Your task to perform on an android device: turn pop-ups on in chrome Image 0: 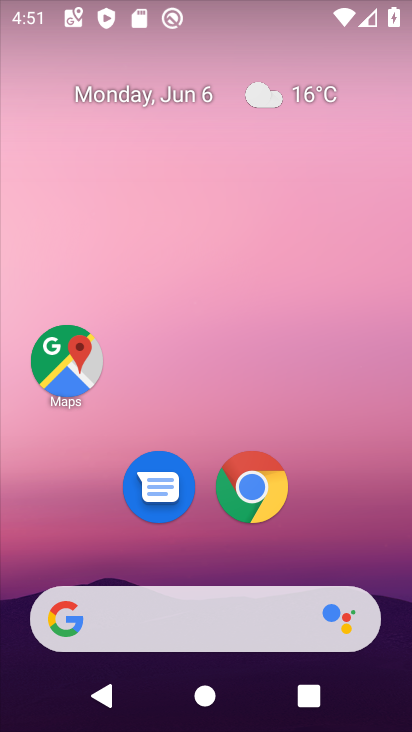
Step 0: click (245, 493)
Your task to perform on an android device: turn pop-ups on in chrome Image 1: 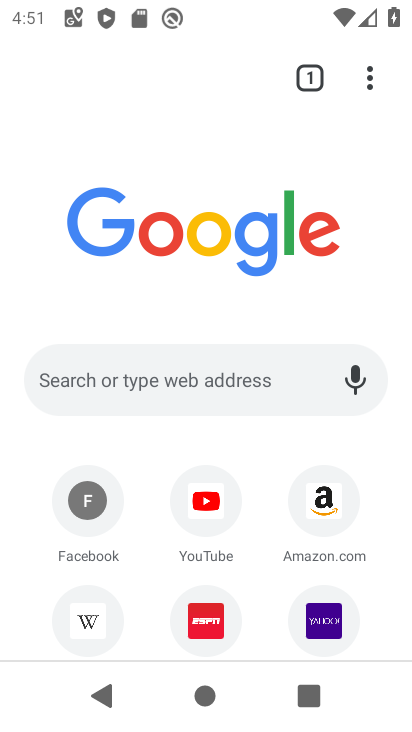
Step 1: click (368, 81)
Your task to perform on an android device: turn pop-ups on in chrome Image 2: 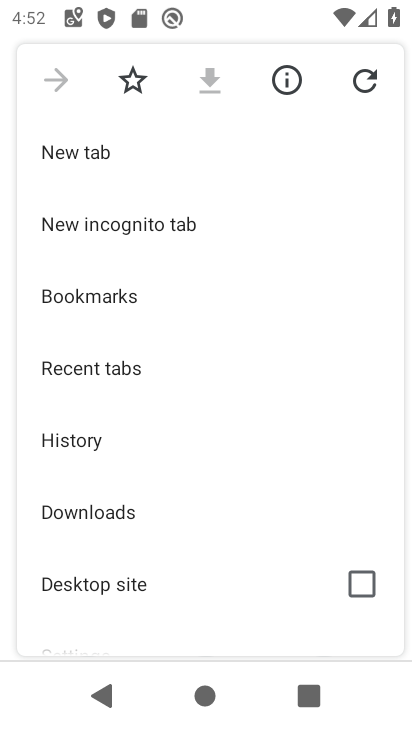
Step 2: drag from (199, 543) to (203, 180)
Your task to perform on an android device: turn pop-ups on in chrome Image 3: 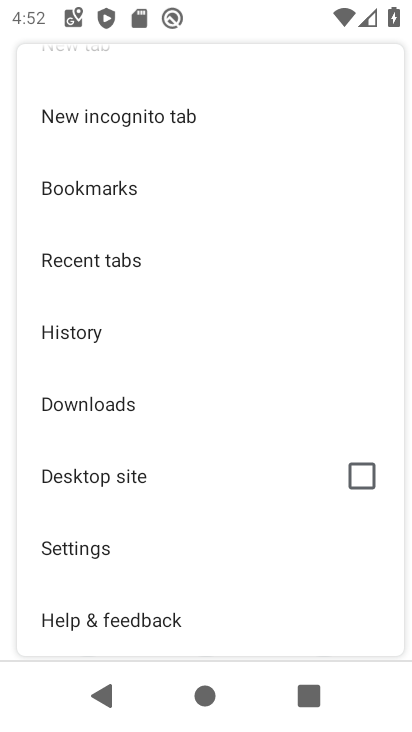
Step 3: click (106, 554)
Your task to perform on an android device: turn pop-ups on in chrome Image 4: 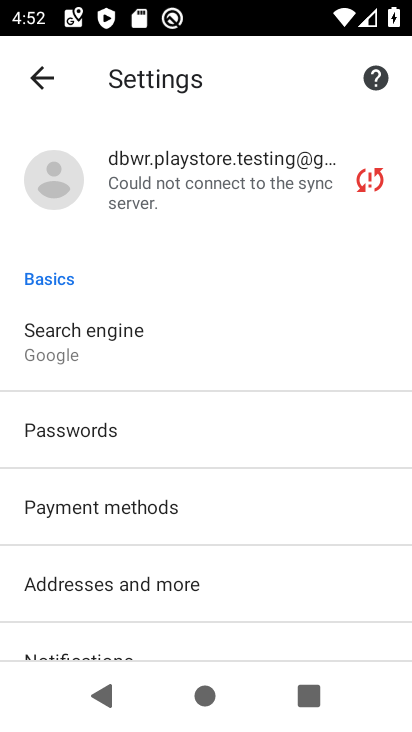
Step 4: drag from (166, 533) to (183, 222)
Your task to perform on an android device: turn pop-ups on in chrome Image 5: 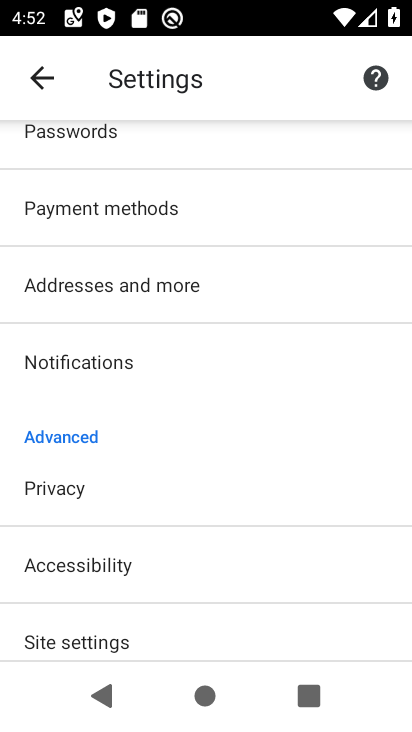
Step 5: click (184, 630)
Your task to perform on an android device: turn pop-ups on in chrome Image 6: 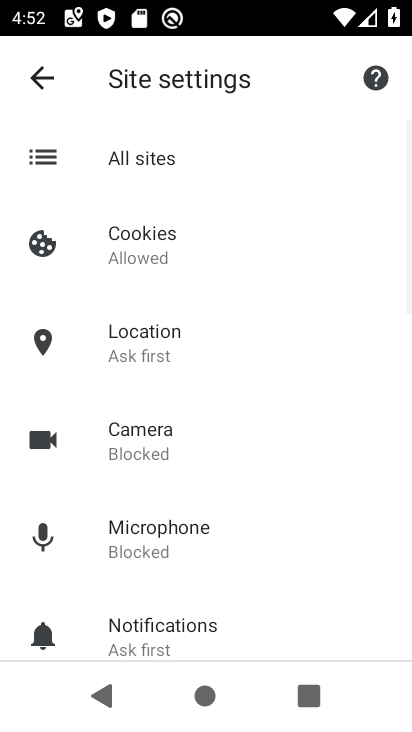
Step 6: drag from (256, 547) to (260, 233)
Your task to perform on an android device: turn pop-ups on in chrome Image 7: 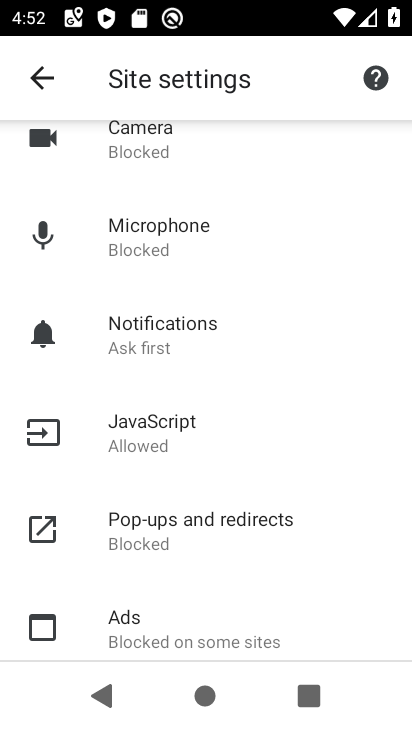
Step 7: click (221, 538)
Your task to perform on an android device: turn pop-ups on in chrome Image 8: 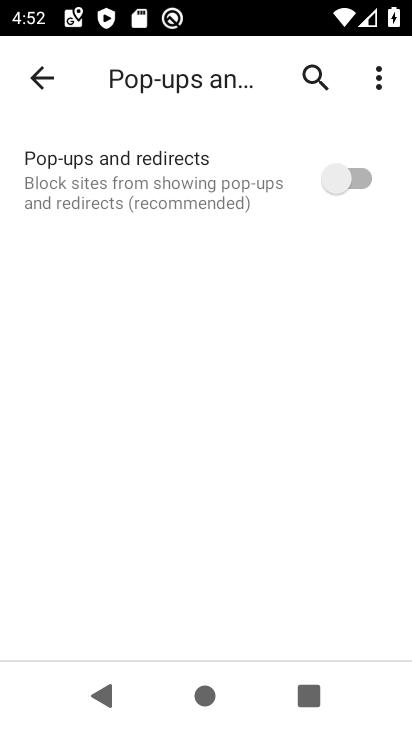
Step 8: click (351, 174)
Your task to perform on an android device: turn pop-ups on in chrome Image 9: 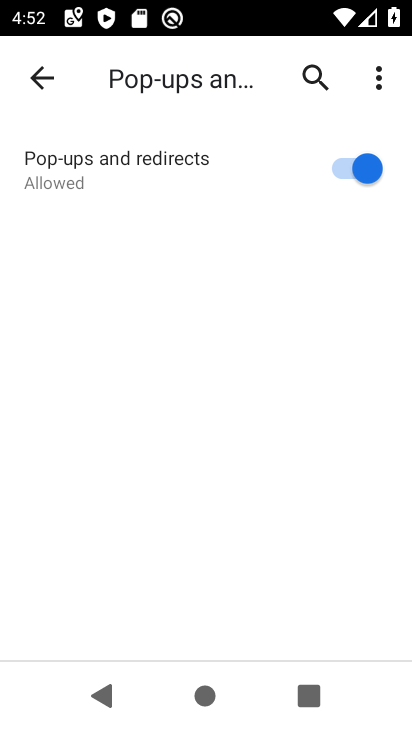
Step 9: task complete